Your task to perform on an android device: Do I have any events today? Image 0: 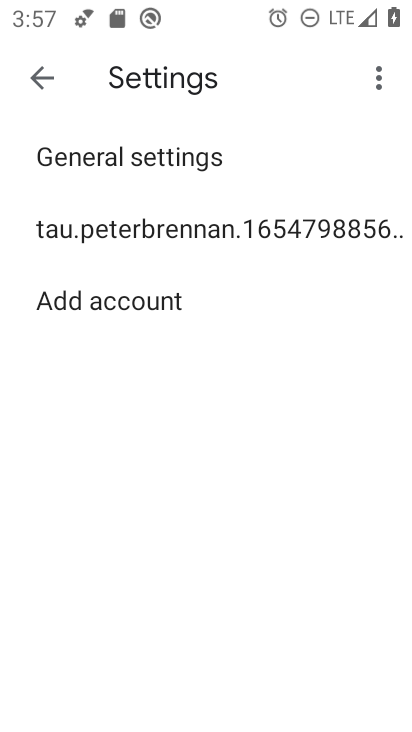
Step 0: press back button
Your task to perform on an android device: Do I have any events today? Image 1: 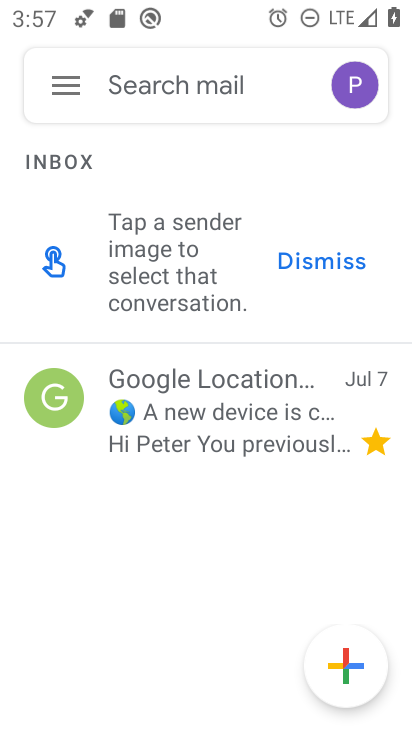
Step 1: press back button
Your task to perform on an android device: Do I have any events today? Image 2: 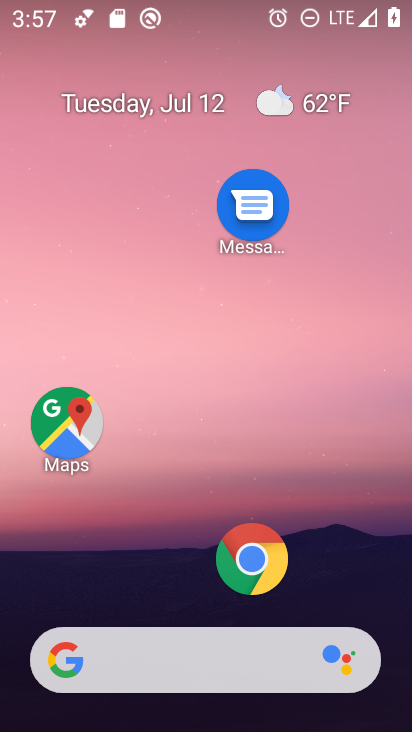
Step 2: drag from (142, 607) to (318, 26)
Your task to perform on an android device: Do I have any events today? Image 3: 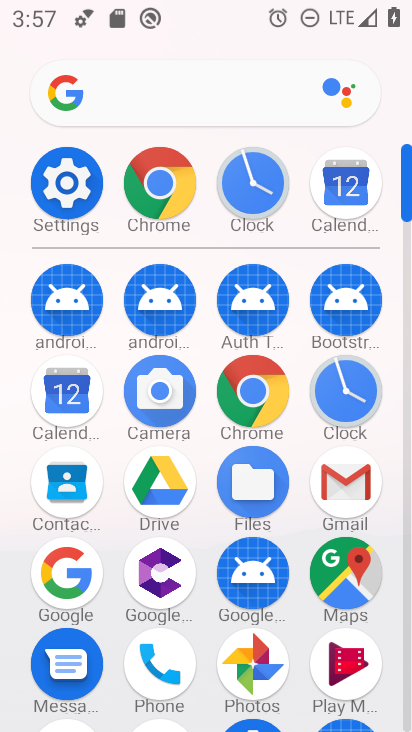
Step 3: click (58, 395)
Your task to perform on an android device: Do I have any events today? Image 4: 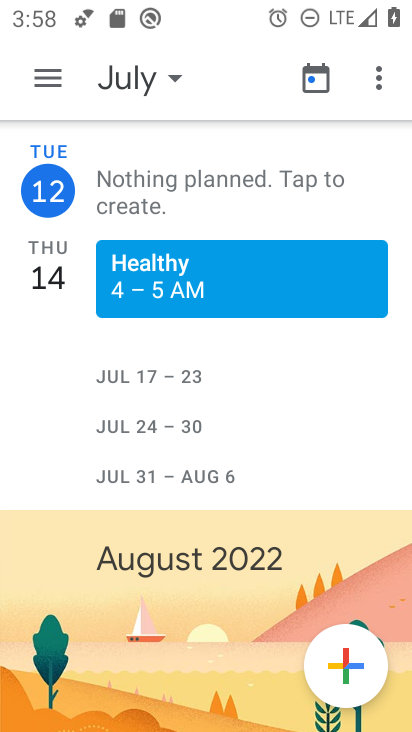
Step 4: task complete